Your task to perform on an android device: turn on location history Image 0: 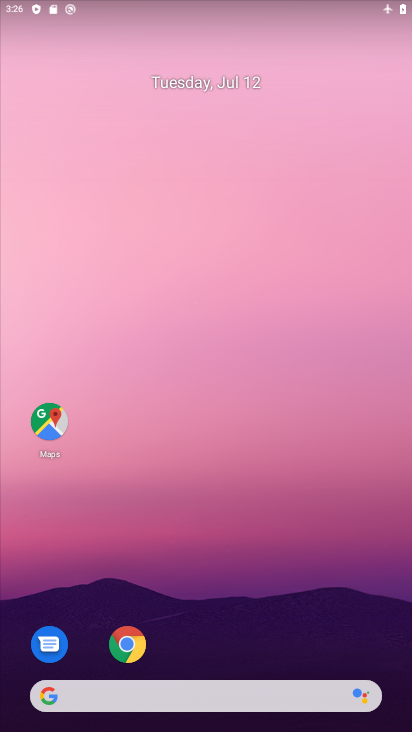
Step 0: drag from (204, 482) to (242, 99)
Your task to perform on an android device: turn on location history Image 1: 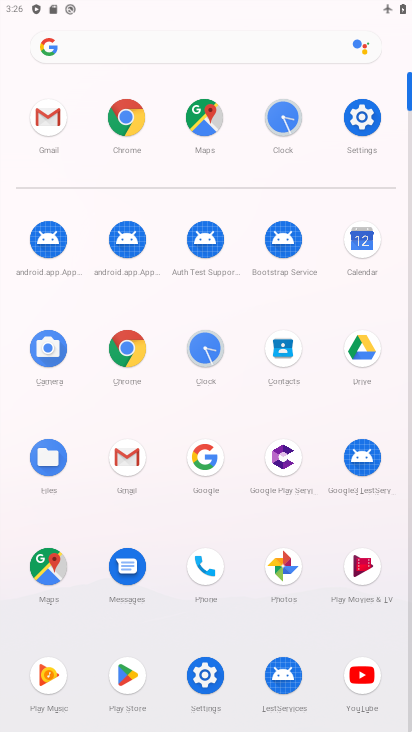
Step 1: click (360, 114)
Your task to perform on an android device: turn on location history Image 2: 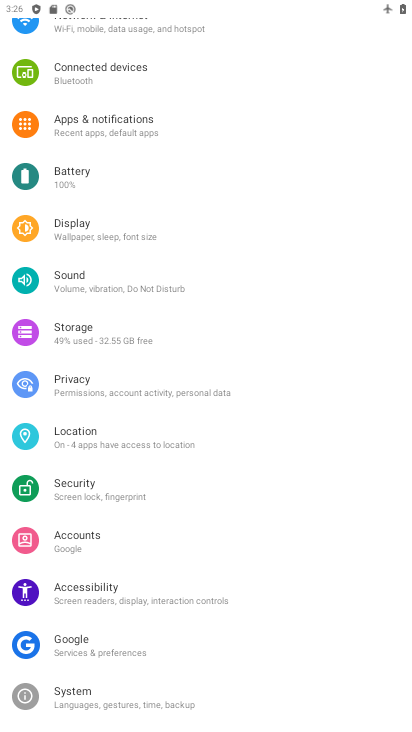
Step 2: click (88, 432)
Your task to perform on an android device: turn on location history Image 3: 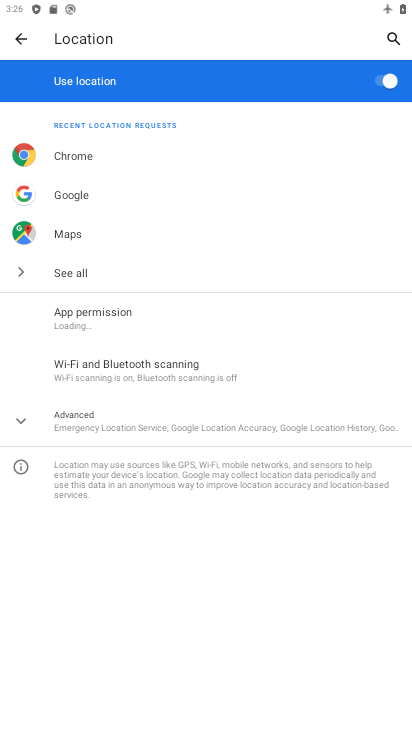
Step 3: click (88, 432)
Your task to perform on an android device: turn on location history Image 4: 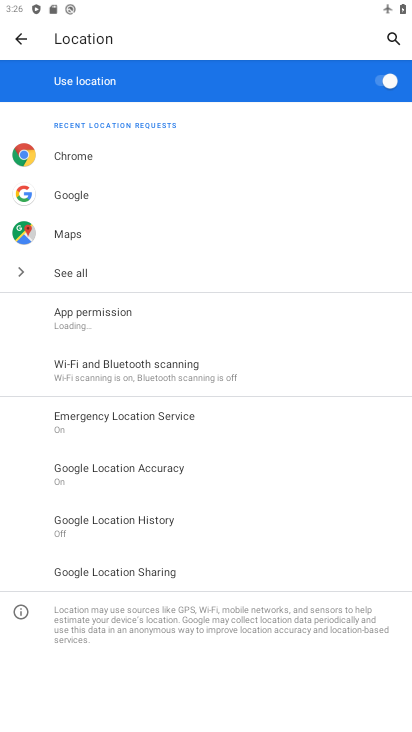
Step 4: click (132, 524)
Your task to perform on an android device: turn on location history Image 5: 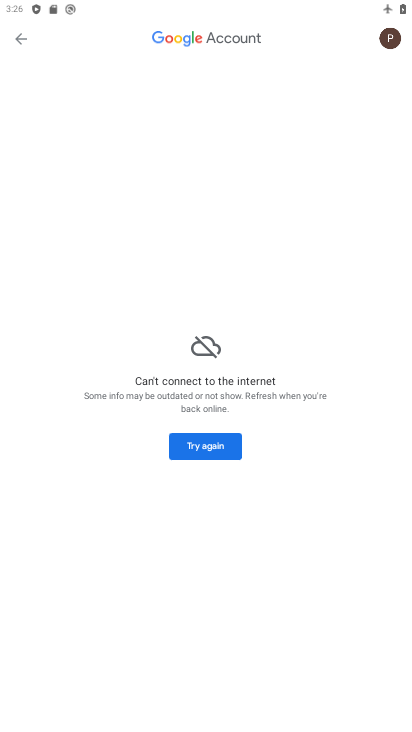
Step 5: task complete